Your task to perform on an android device: open app "Lyft - Rideshare, Bikes, Scooters & Transit" Image 0: 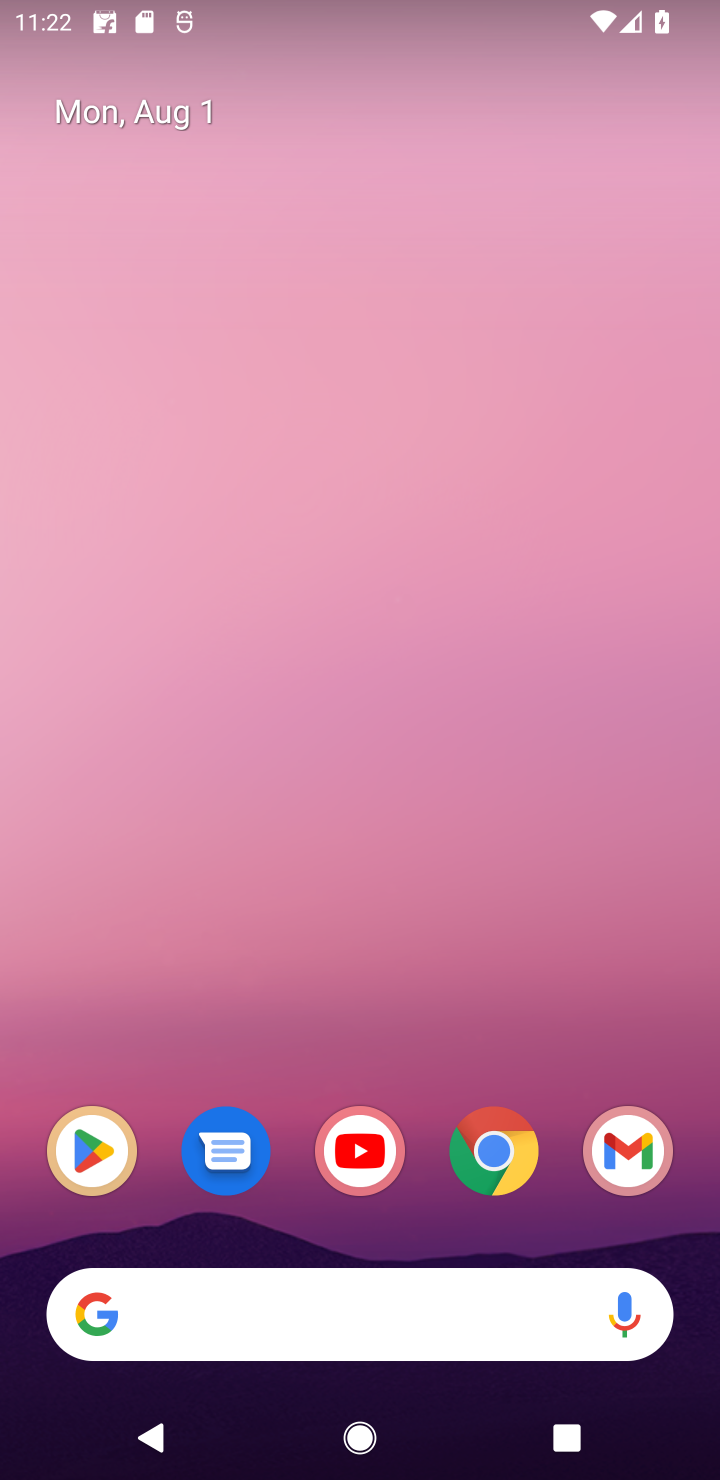
Step 0: click (121, 1154)
Your task to perform on an android device: open app "Lyft - Rideshare, Bikes, Scooters & Transit" Image 1: 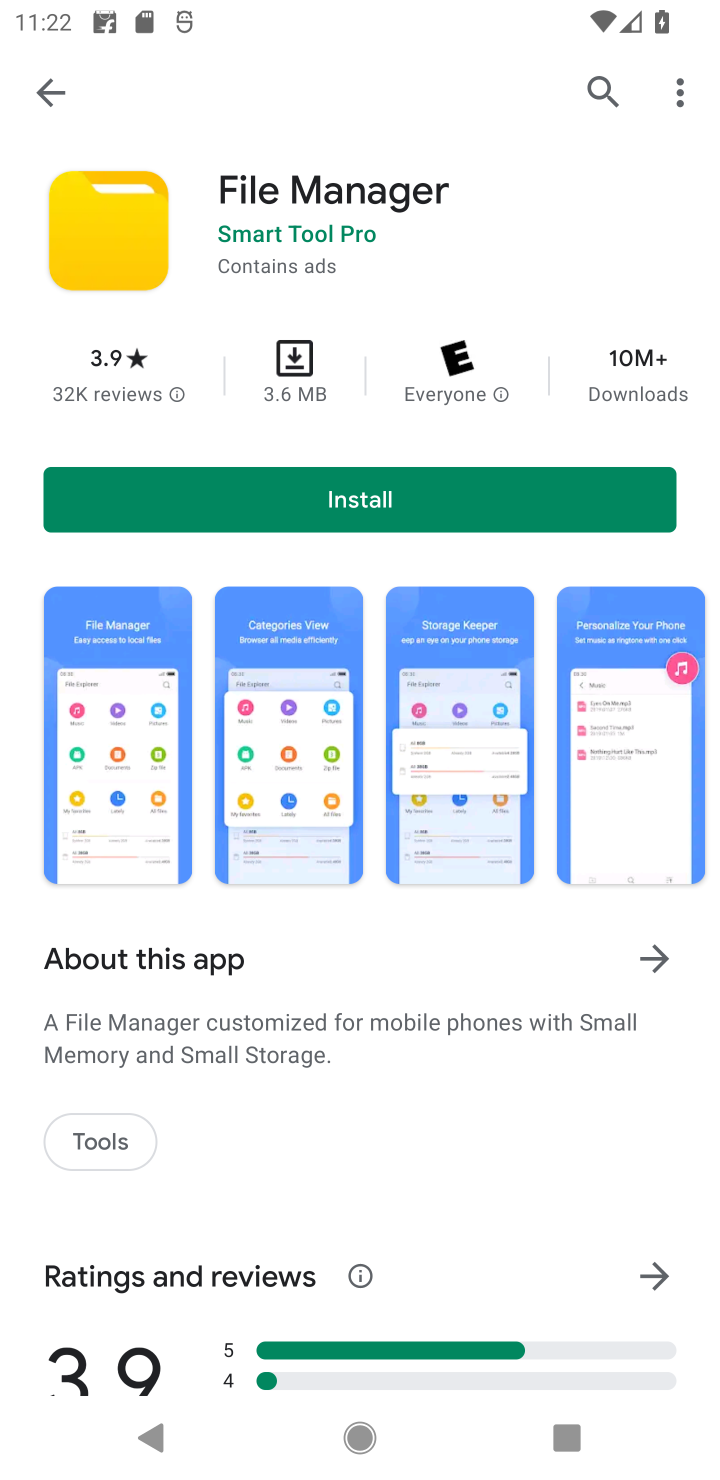
Step 1: click (593, 106)
Your task to perform on an android device: open app "Lyft - Rideshare, Bikes, Scooters & Transit" Image 2: 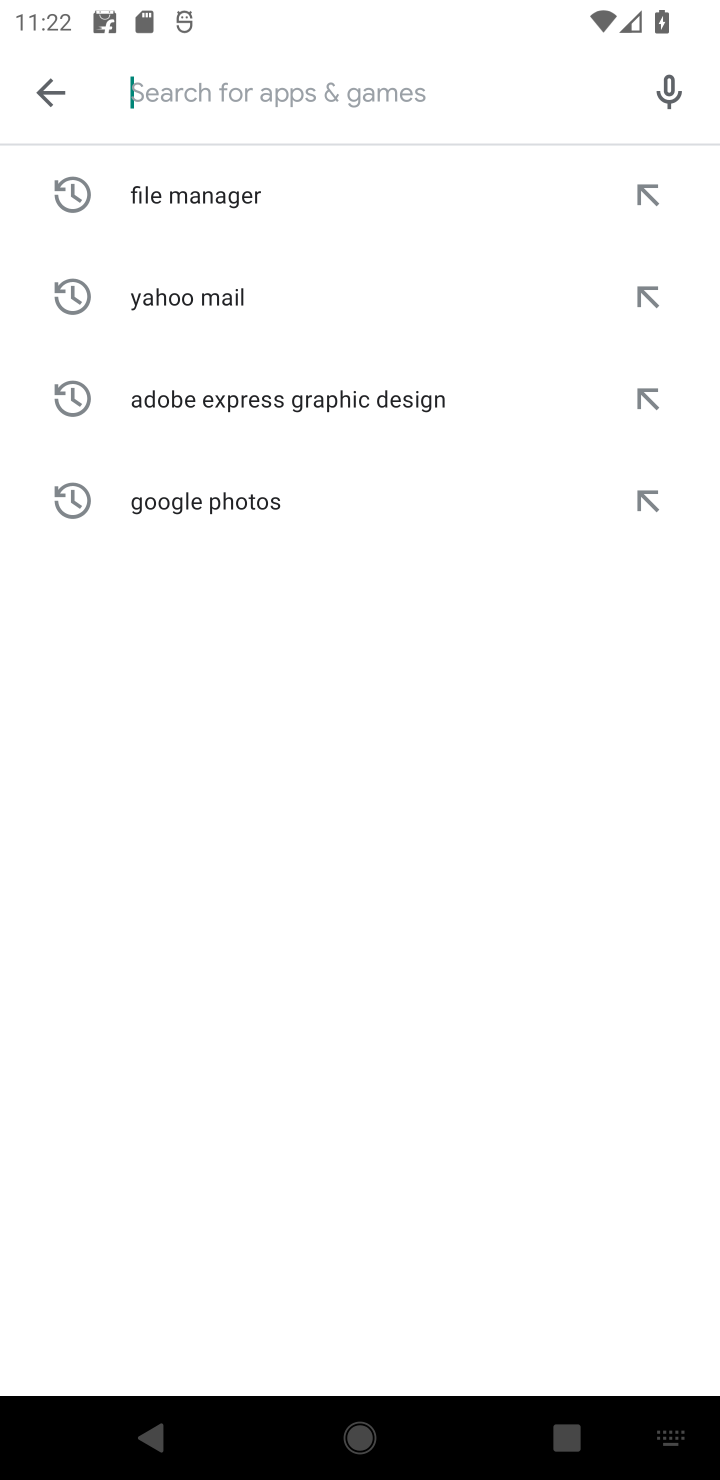
Step 2: type "Lyft - Rideshare, Bikes, Scooters & Transit"
Your task to perform on an android device: open app "Lyft - Rideshare, Bikes, Scooters & Transit" Image 3: 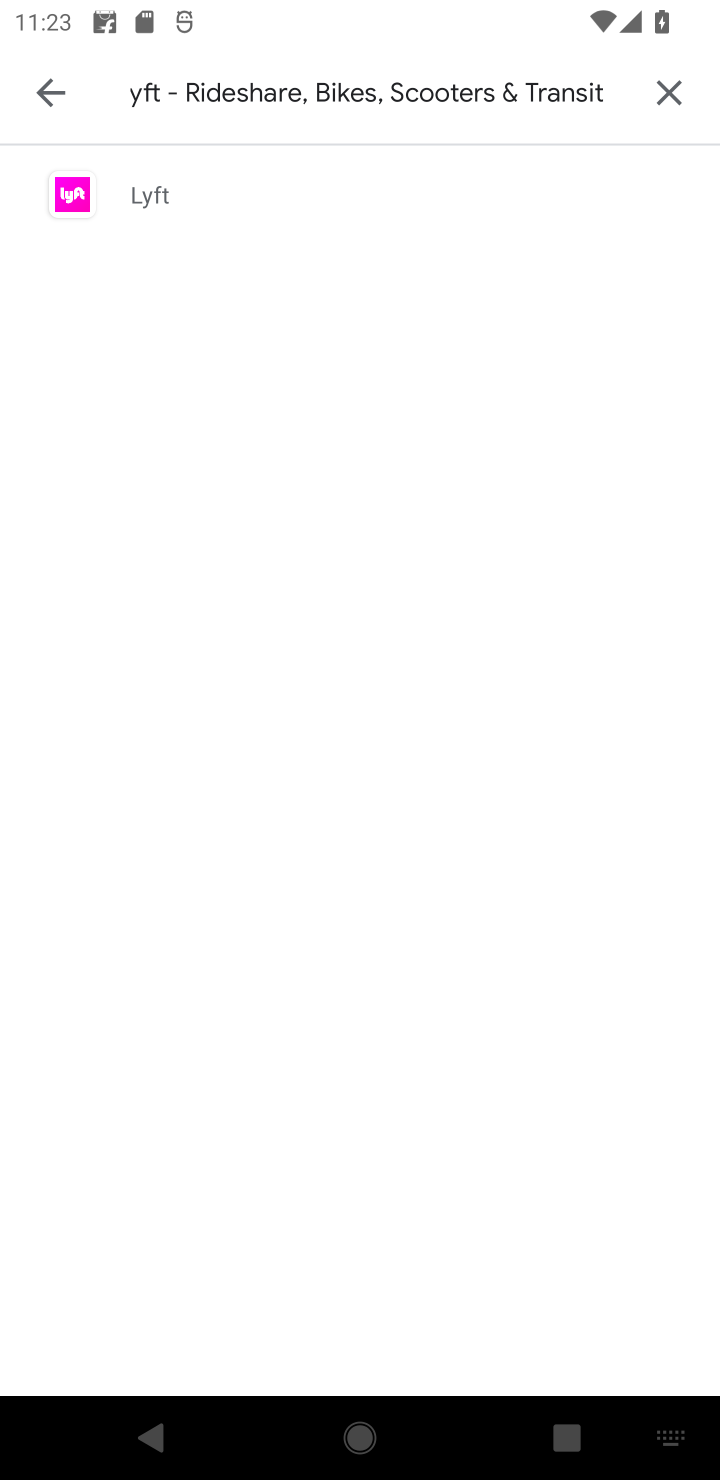
Step 3: click (329, 187)
Your task to perform on an android device: open app "Lyft - Rideshare, Bikes, Scooters & Transit" Image 4: 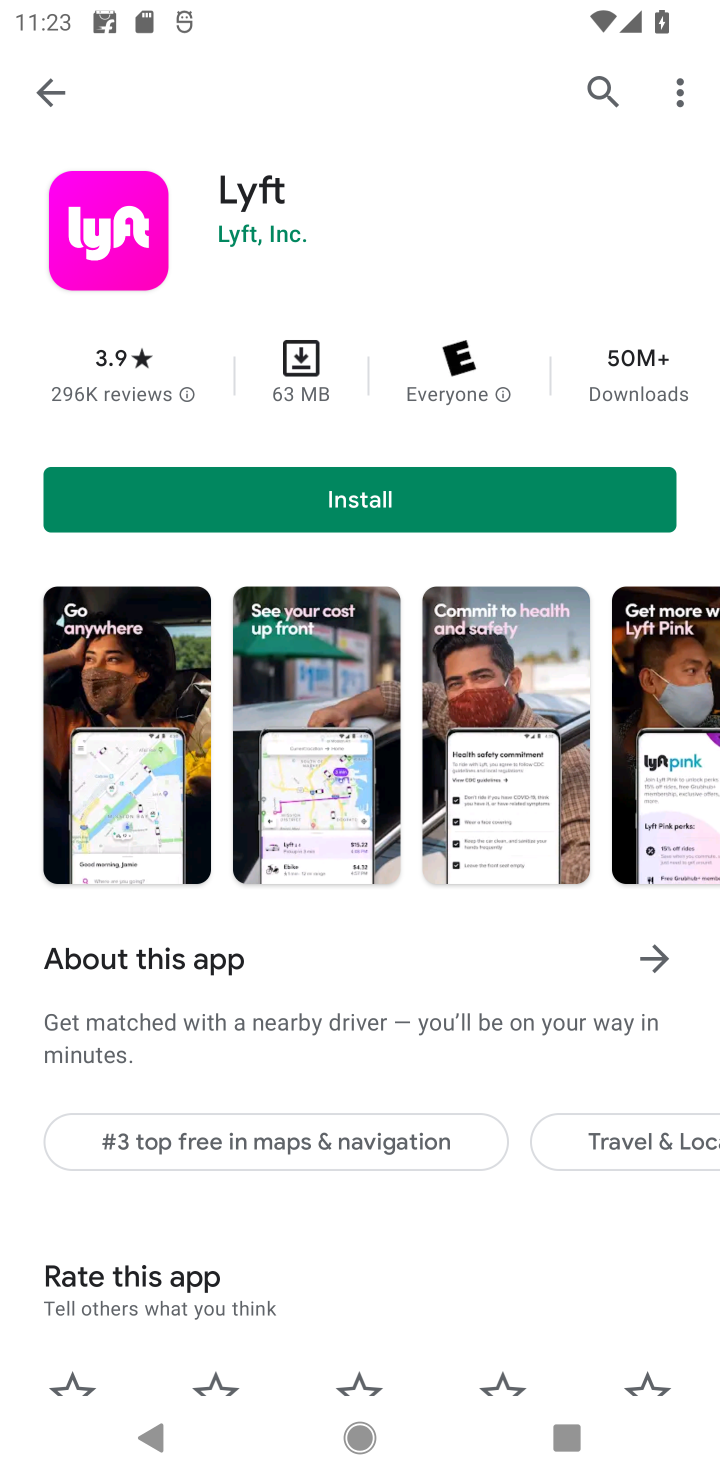
Step 4: task complete